Your task to perform on an android device: Open privacy settings Image 0: 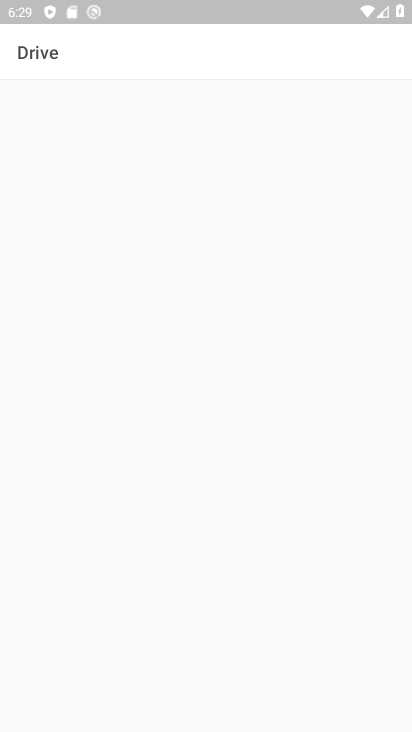
Step 0: press home button
Your task to perform on an android device: Open privacy settings Image 1: 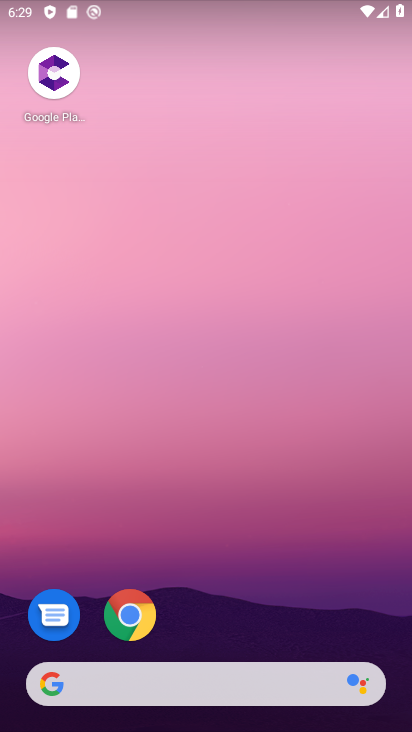
Step 1: drag from (285, 549) to (219, 115)
Your task to perform on an android device: Open privacy settings Image 2: 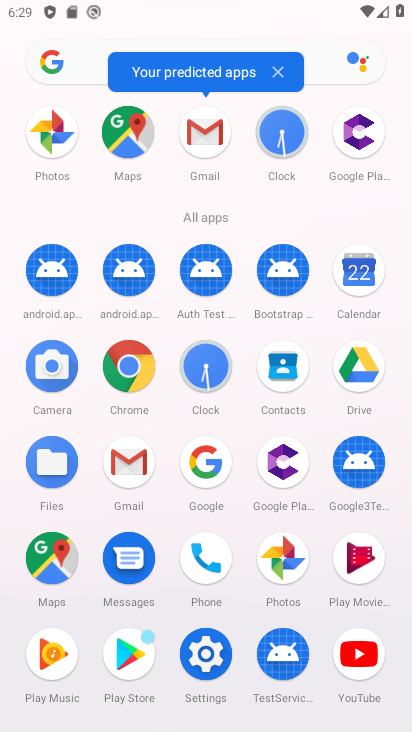
Step 2: click (209, 657)
Your task to perform on an android device: Open privacy settings Image 3: 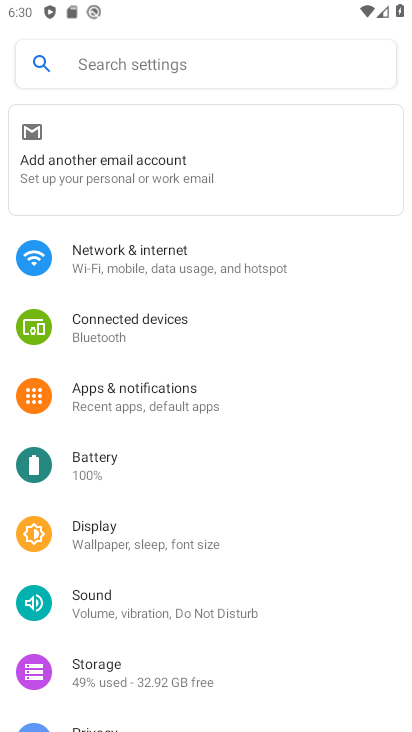
Step 3: drag from (248, 571) to (238, 230)
Your task to perform on an android device: Open privacy settings Image 4: 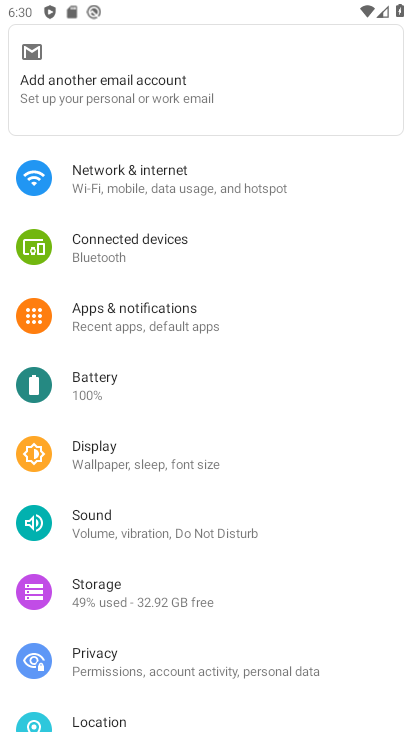
Step 4: click (98, 654)
Your task to perform on an android device: Open privacy settings Image 5: 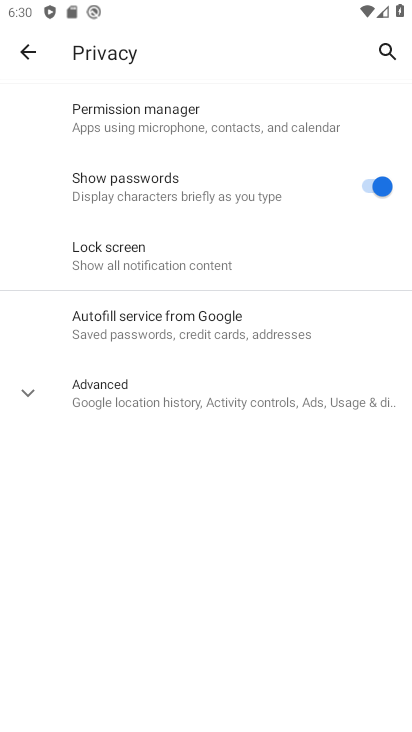
Step 5: task complete